Your task to perform on an android device: stop showing notifications on the lock screen Image 0: 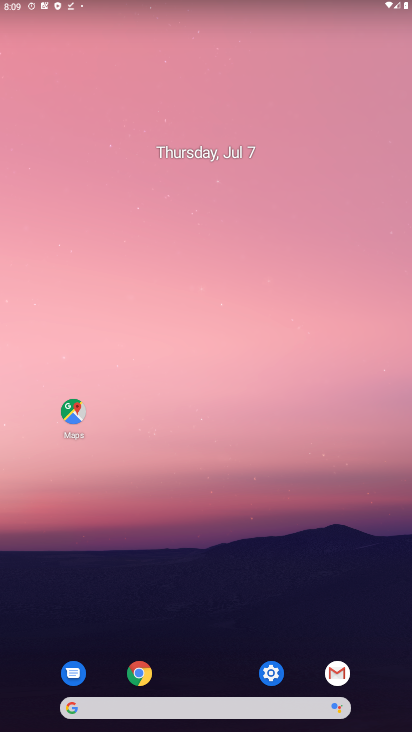
Step 0: click (269, 687)
Your task to perform on an android device: stop showing notifications on the lock screen Image 1: 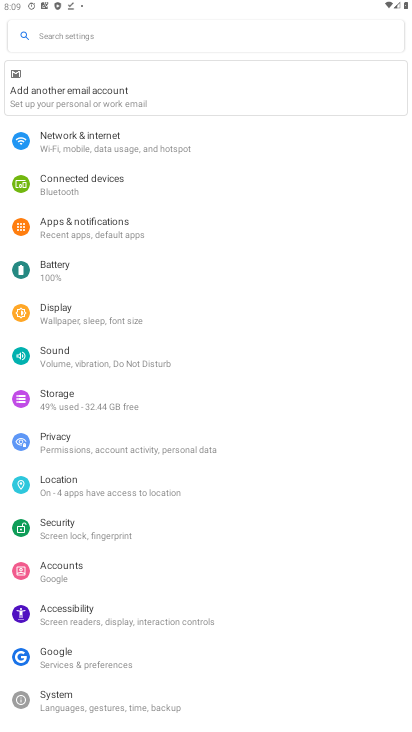
Step 1: click (99, 40)
Your task to perform on an android device: stop showing notifications on the lock screen Image 2: 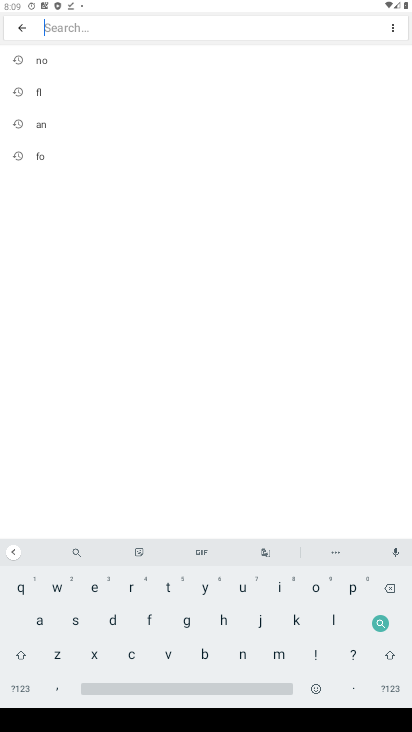
Step 2: click (246, 655)
Your task to perform on an android device: stop showing notifications on the lock screen Image 3: 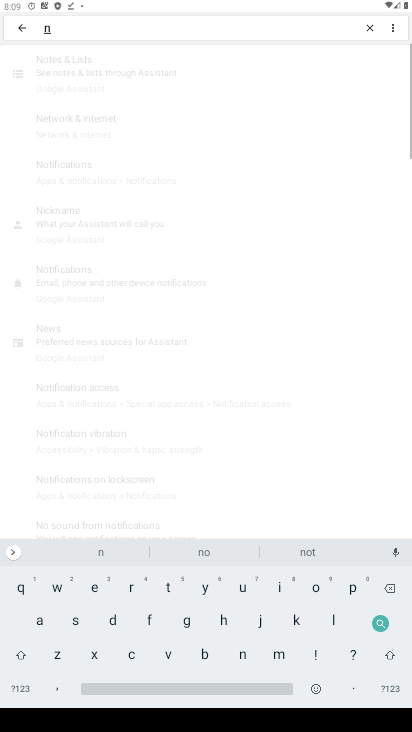
Step 3: click (321, 592)
Your task to perform on an android device: stop showing notifications on the lock screen Image 4: 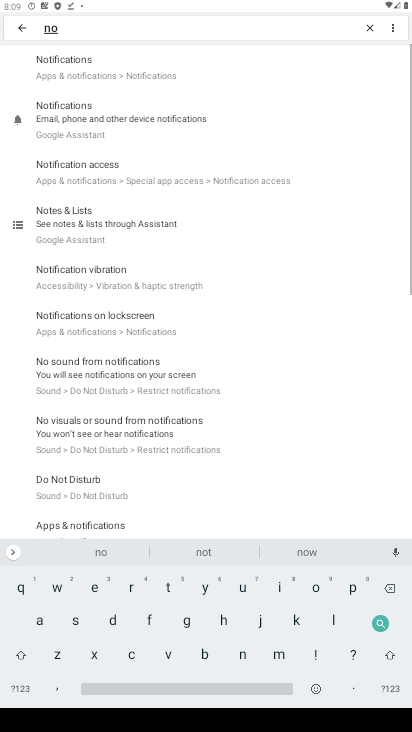
Step 4: click (102, 72)
Your task to perform on an android device: stop showing notifications on the lock screen Image 5: 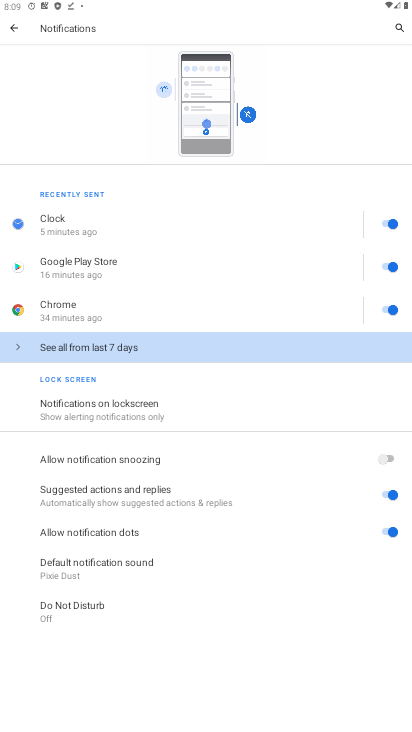
Step 5: click (126, 405)
Your task to perform on an android device: stop showing notifications on the lock screen Image 6: 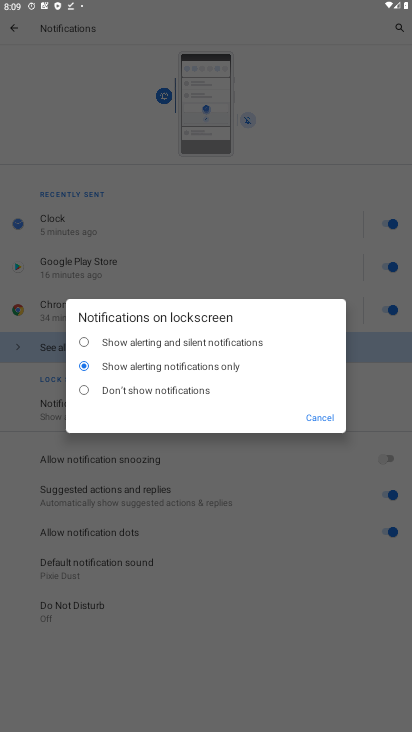
Step 6: click (99, 389)
Your task to perform on an android device: stop showing notifications on the lock screen Image 7: 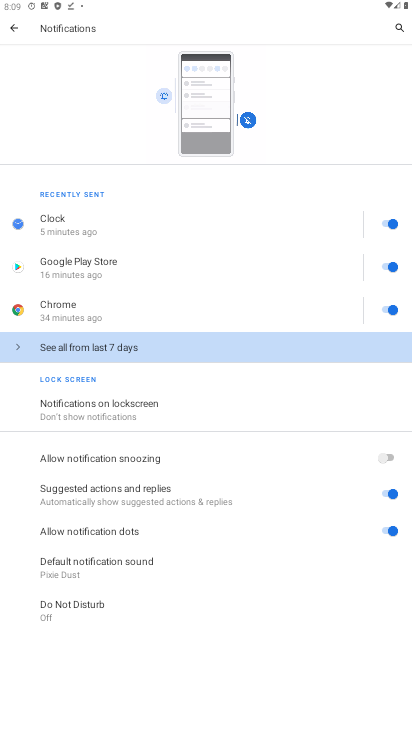
Step 7: click (92, 352)
Your task to perform on an android device: stop showing notifications on the lock screen Image 8: 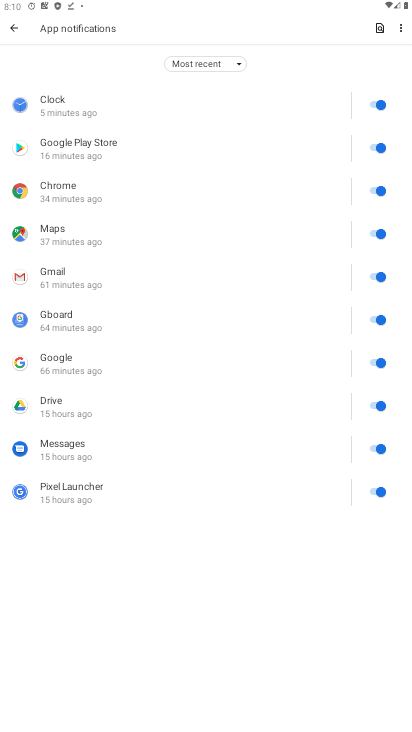
Step 8: click (16, 22)
Your task to perform on an android device: stop showing notifications on the lock screen Image 9: 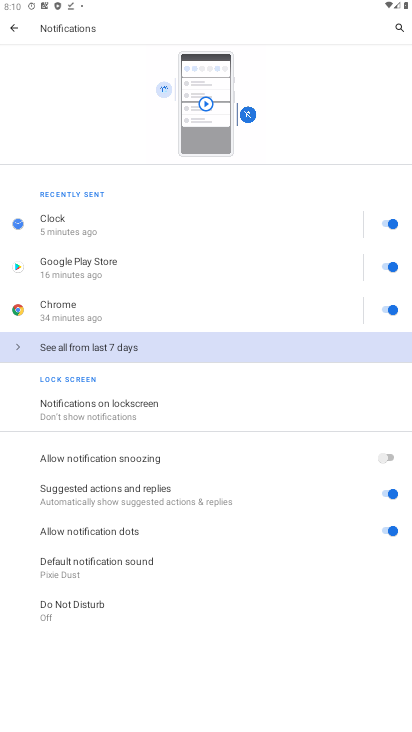
Step 9: click (135, 411)
Your task to perform on an android device: stop showing notifications on the lock screen Image 10: 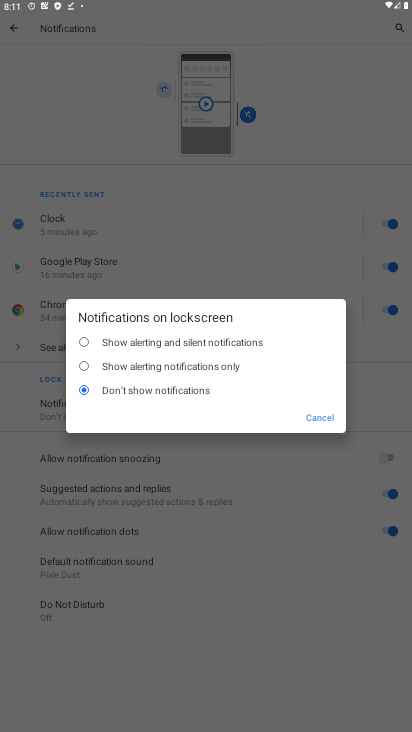
Step 10: task complete